Your task to perform on an android device: Open notification settings Image 0: 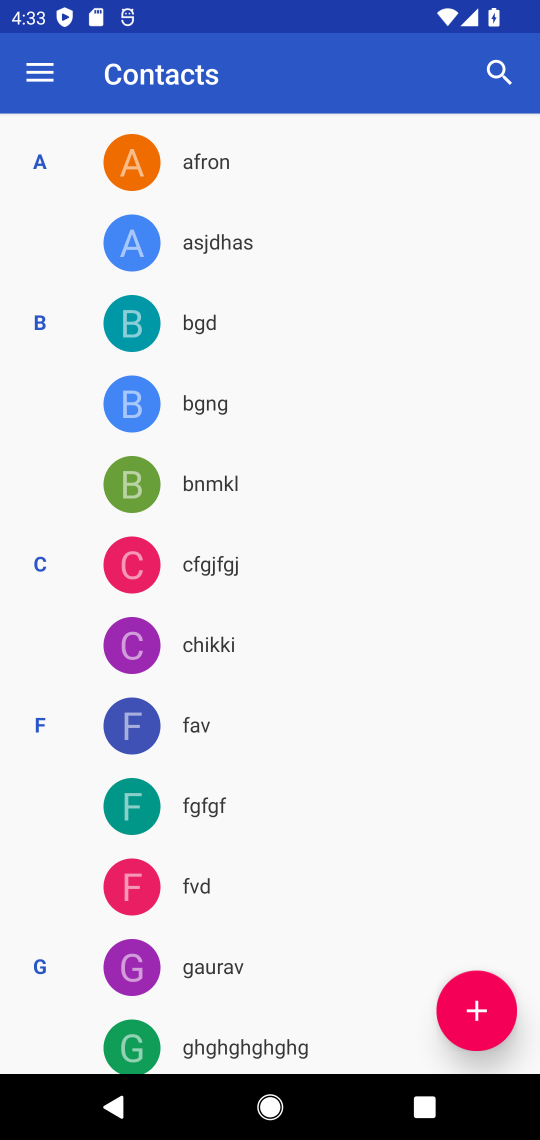
Step 0: press home button
Your task to perform on an android device: Open notification settings Image 1: 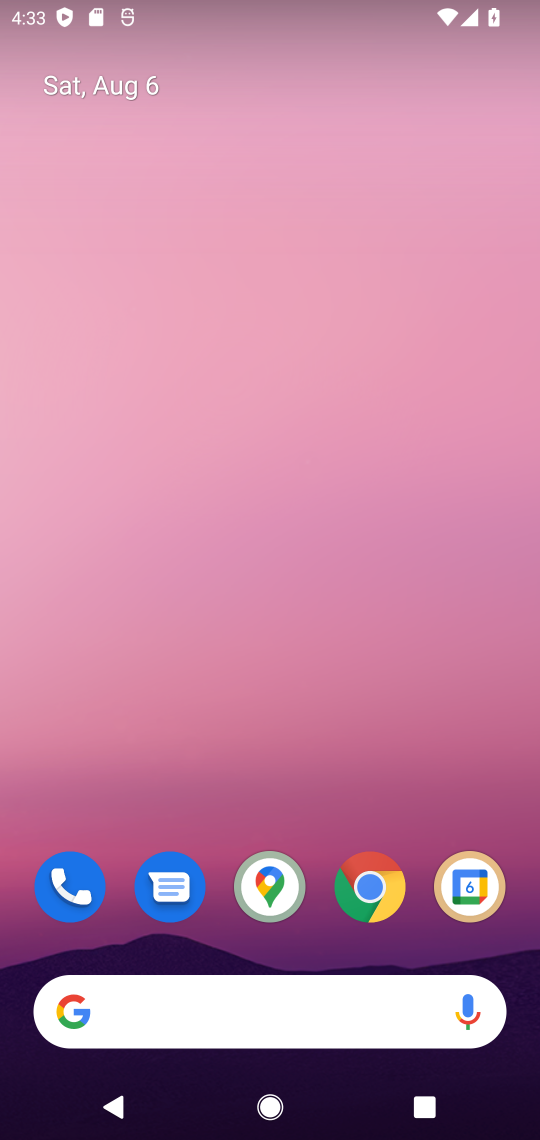
Step 1: drag from (261, 530) to (213, 2)
Your task to perform on an android device: Open notification settings Image 2: 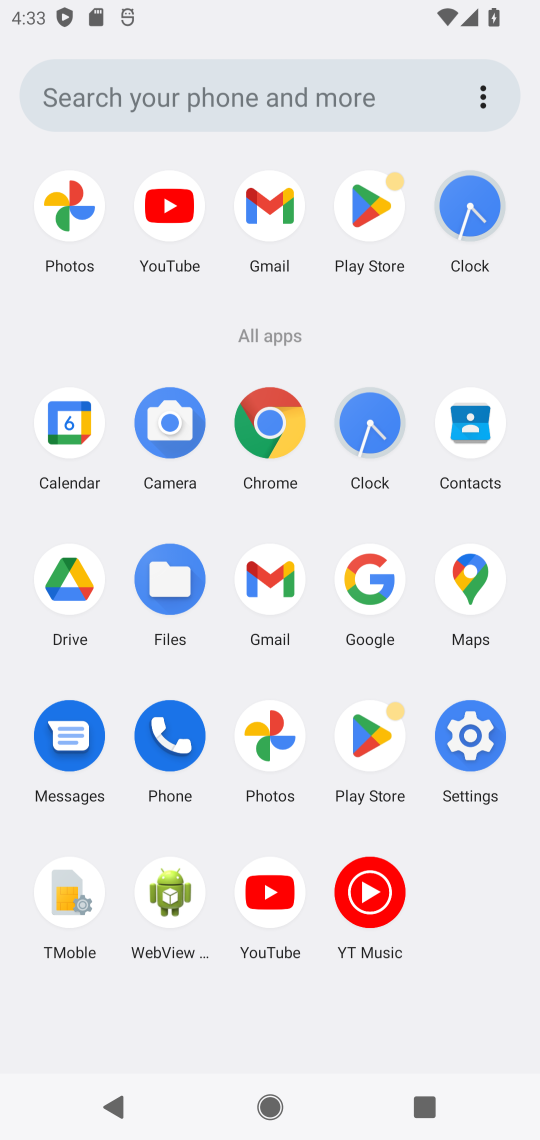
Step 2: click (479, 803)
Your task to perform on an android device: Open notification settings Image 3: 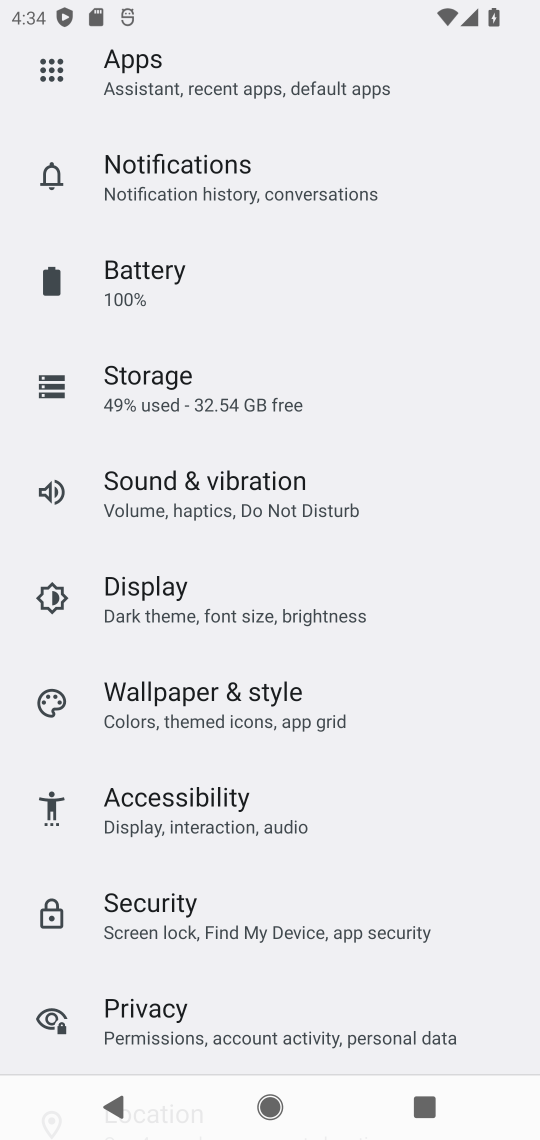
Step 3: click (175, 169)
Your task to perform on an android device: Open notification settings Image 4: 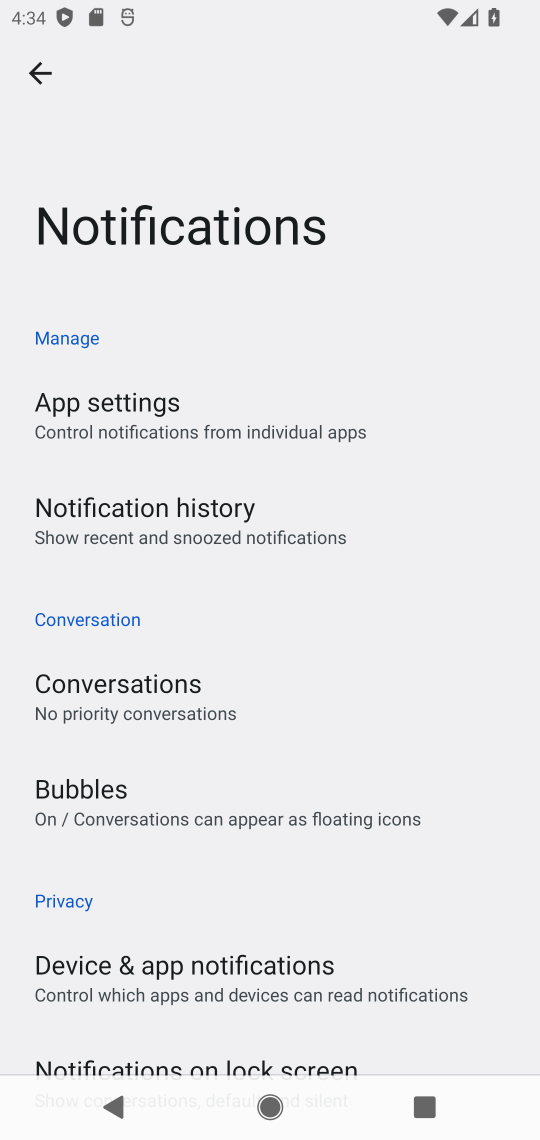
Step 4: task complete